Your task to perform on an android device: Go to sound settings Image 0: 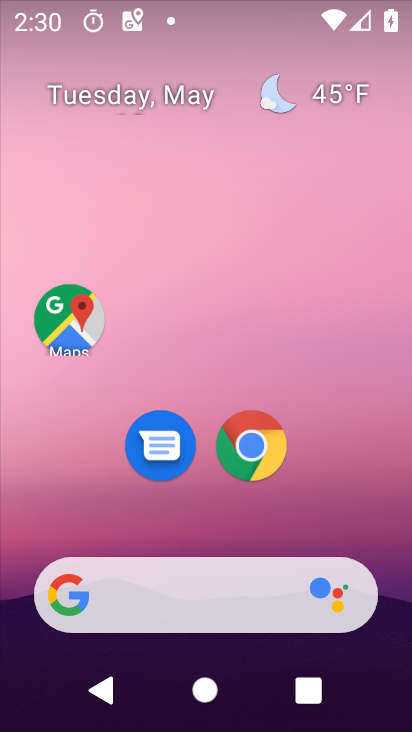
Step 0: drag from (83, 18) to (193, 617)
Your task to perform on an android device: Go to sound settings Image 1: 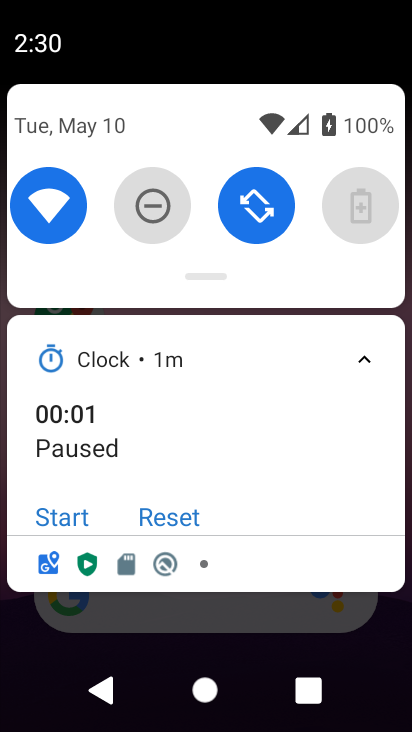
Step 1: drag from (169, 637) to (335, 111)
Your task to perform on an android device: Go to sound settings Image 2: 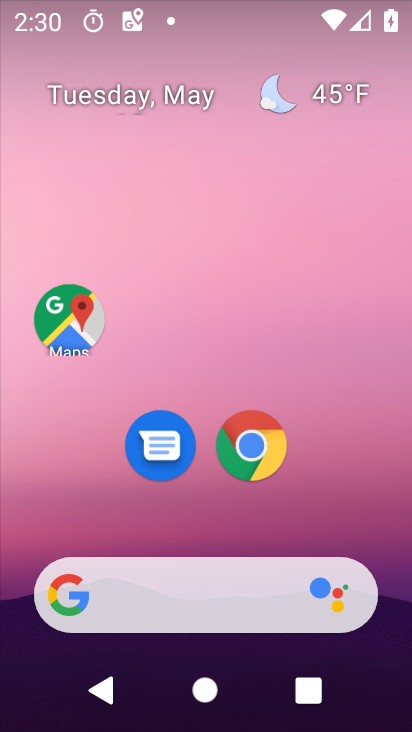
Step 2: drag from (182, 548) to (268, 63)
Your task to perform on an android device: Go to sound settings Image 3: 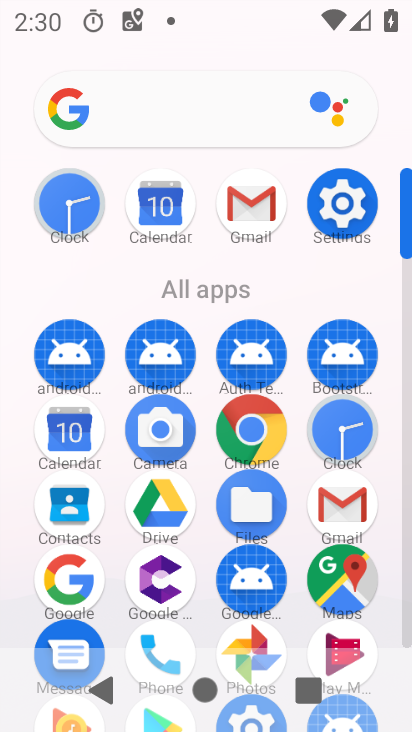
Step 3: click (346, 190)
Your task to perform on an android device: Go to sound settings Image 4: 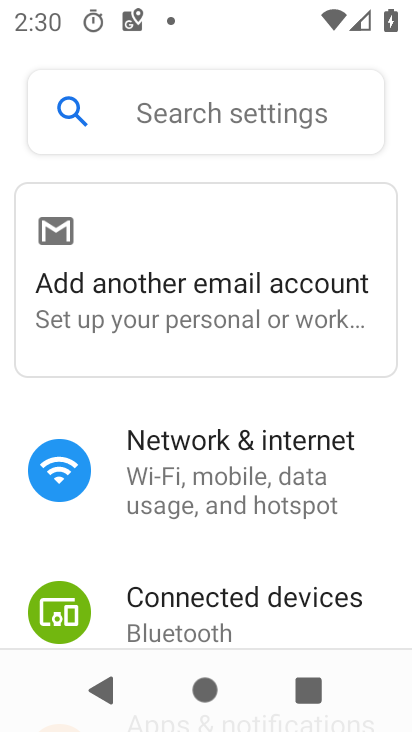
Step 4: drag from (229, 566) to (316, 78)
Your task to perform on an android device: Go to sound settings Image 5: 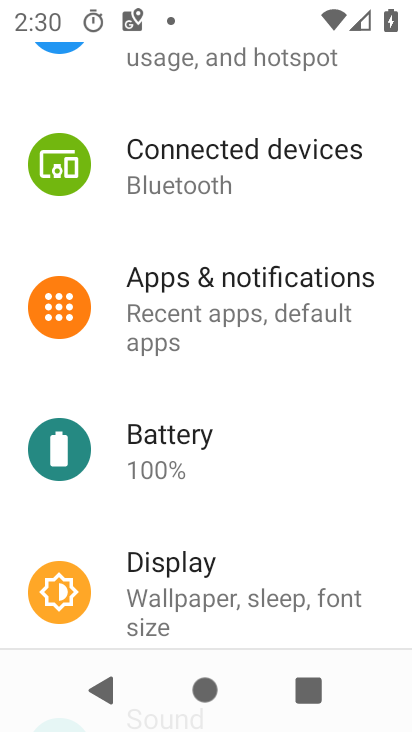
Step 5: drag from (192, 569) to (275, 179)
Your task to perform on an android device: Go to sound settings Image 6: 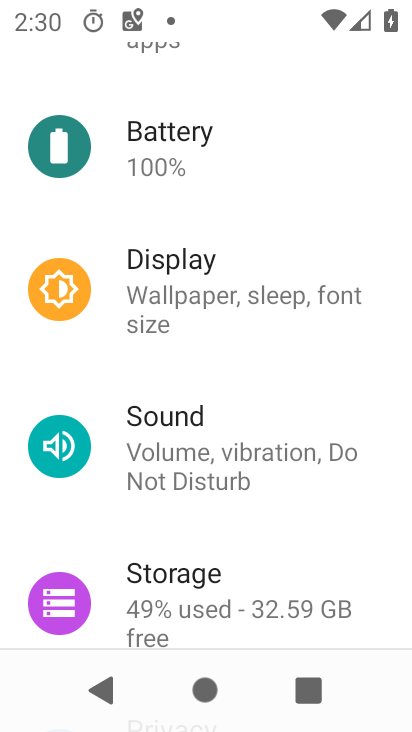
Step 6: click (188, 458)
Your task to perform on an android device: Go to sound settings Image 7: 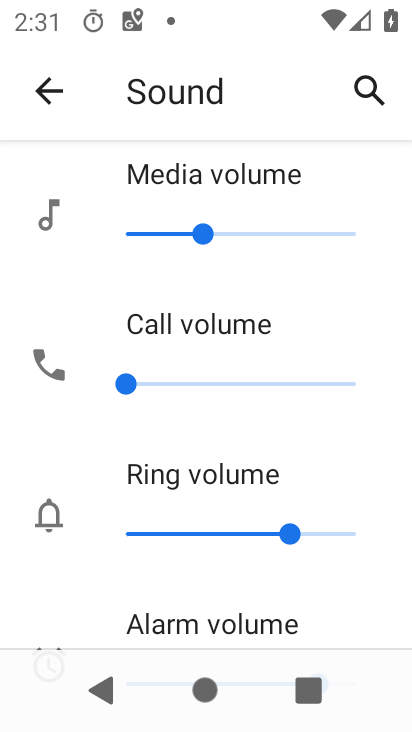
Step 7: task complete